Your task to perform on an android device: turn on improve location accuracy Image 0: 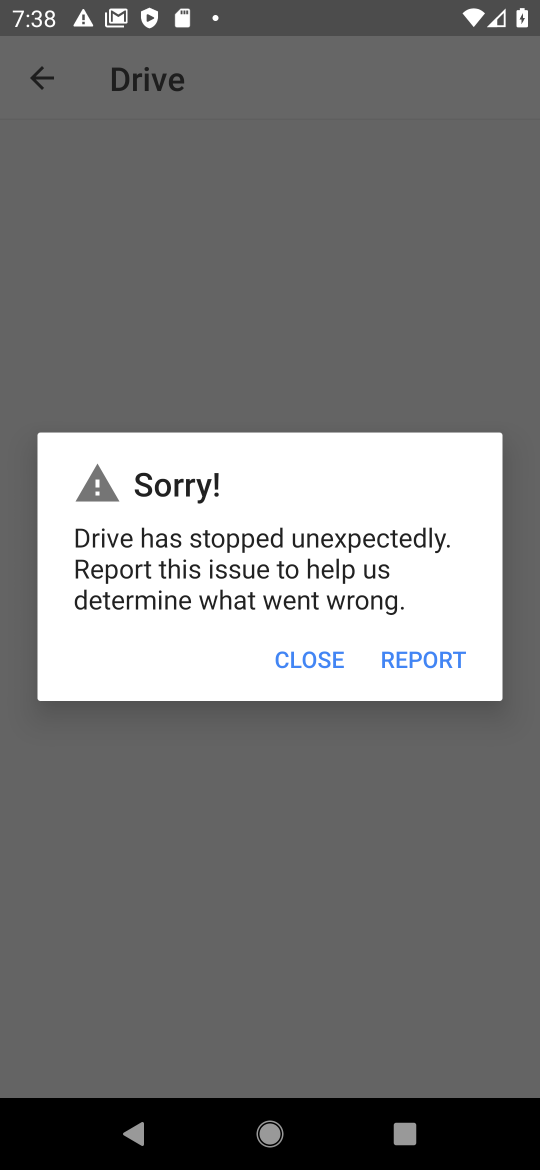
Step 0: press home button
Your task to perform on an android device: turn on improve location accuracy Image 1: 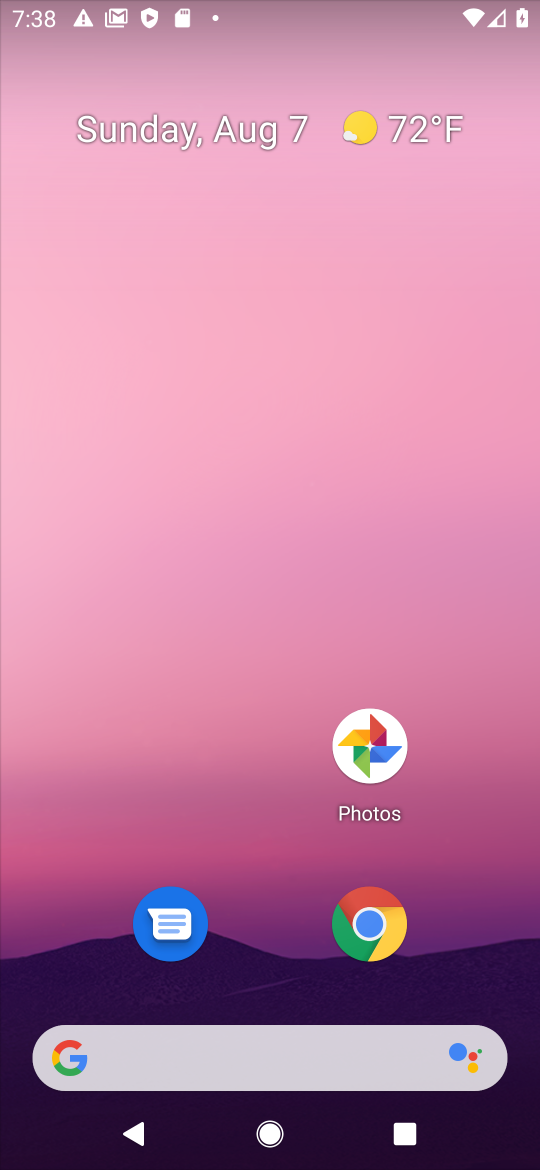
Step 1: drag from (325, 1091) to (361, 138)
Your task to perform on an android device: turn on improve location accuracy Image 2: 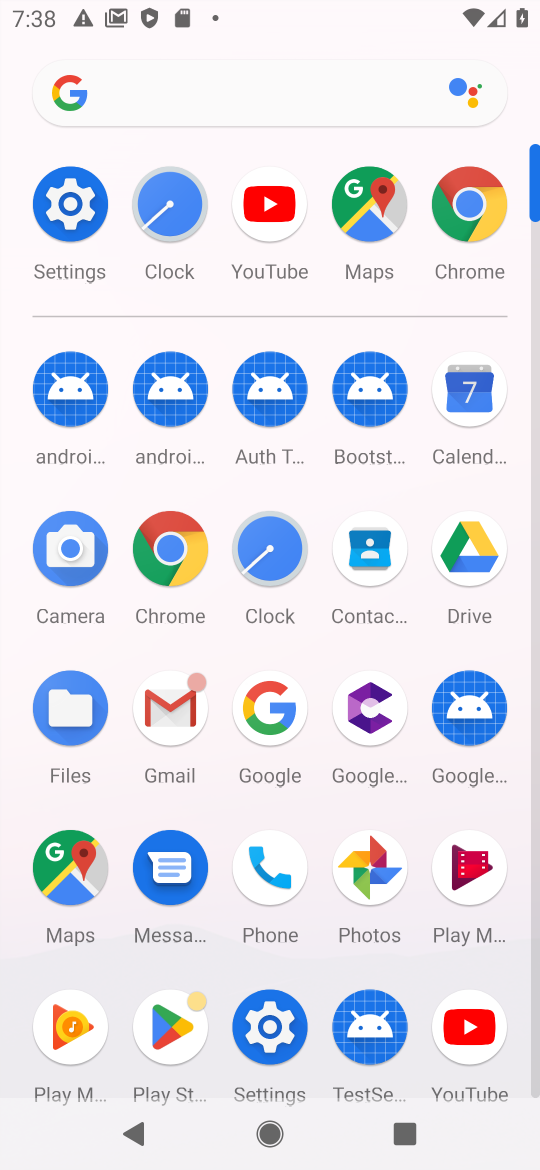
Step 2: click (64, 191)
Your task to perform on an android device: turn on improve location accuracy Image 3: 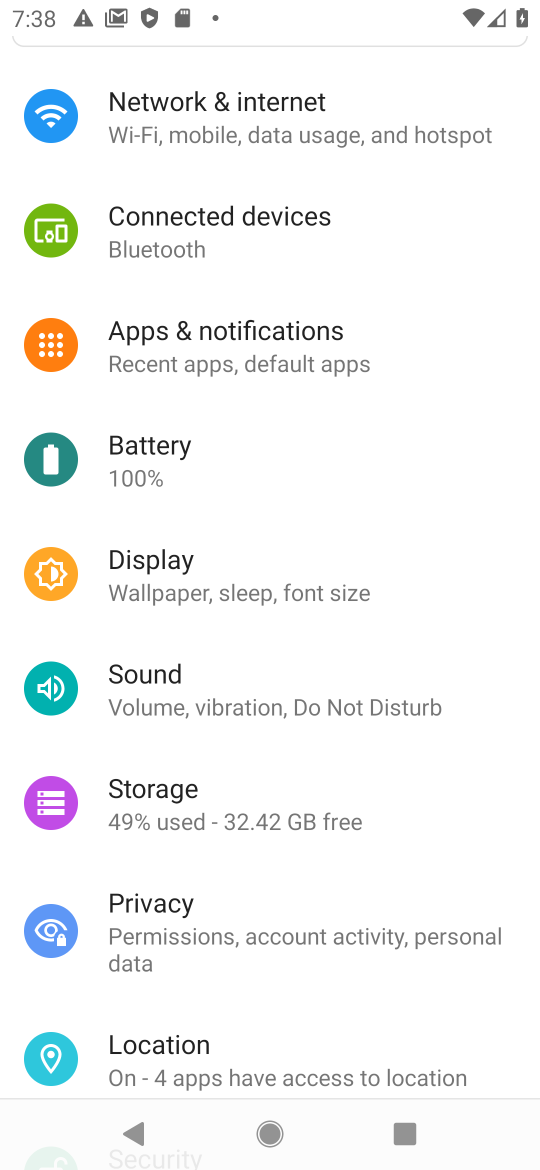
Step 3: click (158, 1037)
Your task to perform on an android device: turn on improve location accuracy Image 4: 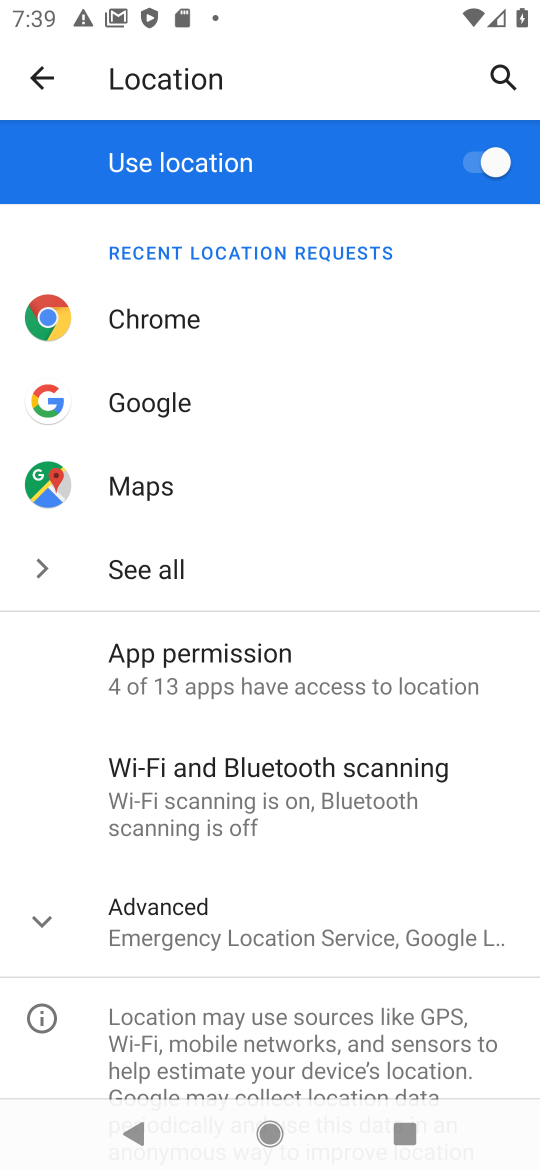
Step 4: click (109, 941)
Your task to perform on an android device: turn on improve location accuracy Image 5: 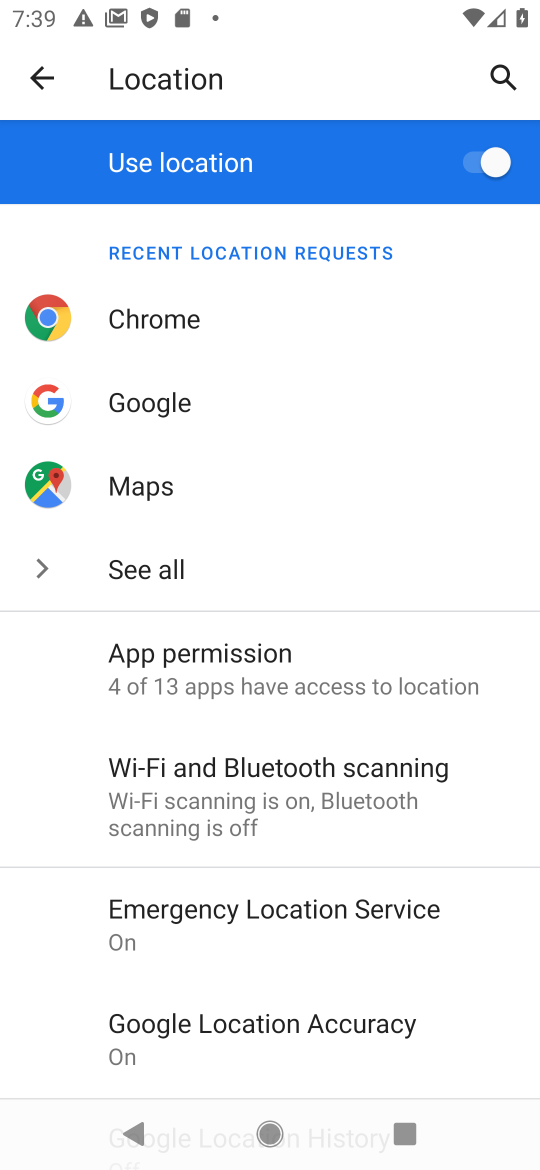
Step 5: click (322, 1005)
Your task to perform on an android device: turn on improve location accuracy Image 6: 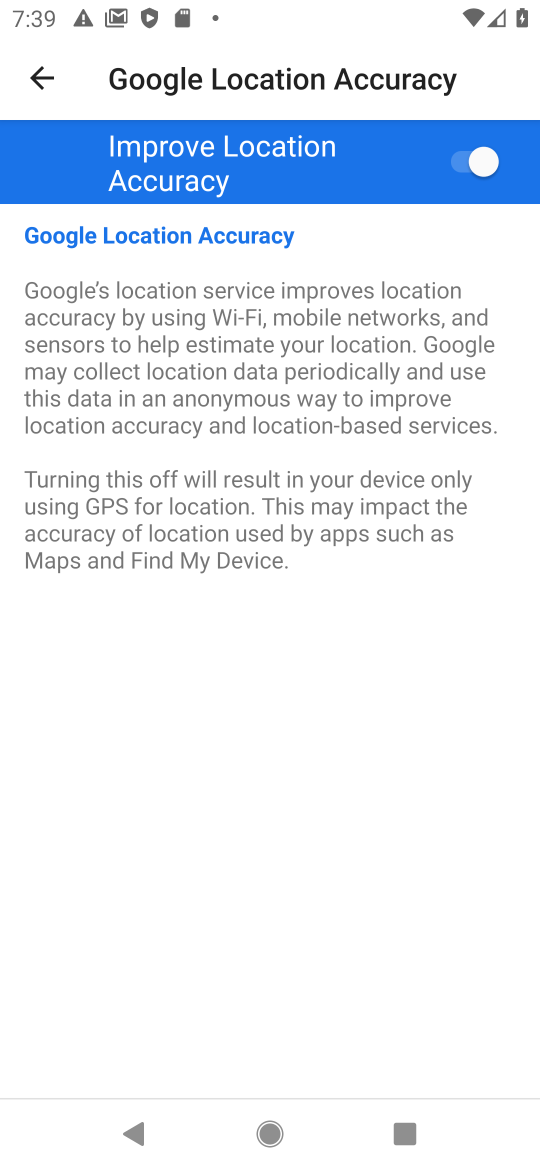
Step 6: task complete